Your task to perform on an android device: change alarm snooze length Image 0: 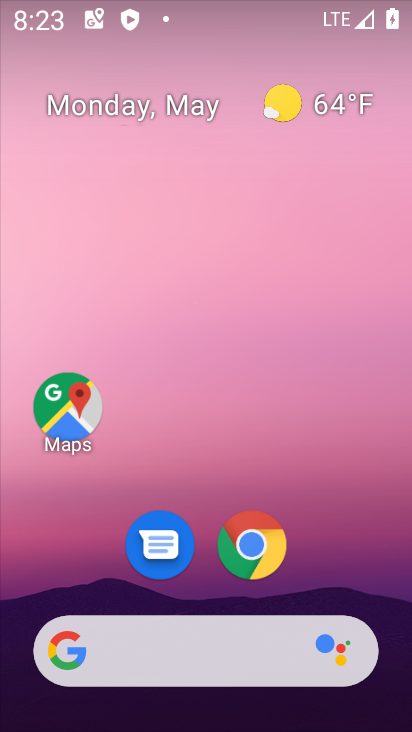
Step 0: drag from (166, 657) to (61, 24)
Your task to perform on an android device: change alarm snooze length Image 1: 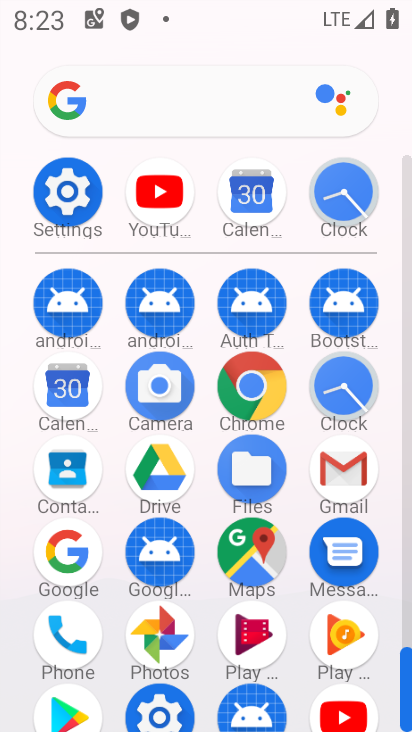
Step 1: click (340, 180)
Your task to perform on an android device: change alarm snooze length Image 2: 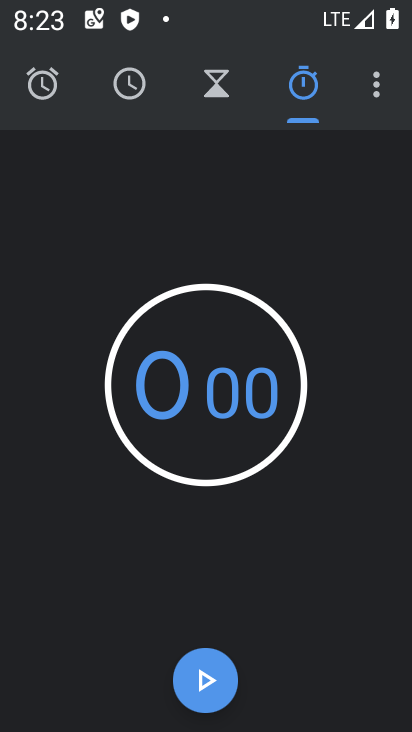
Step 2: click (380, 77)
Your task to perform on an android device: change alarm snooze length Image 3: 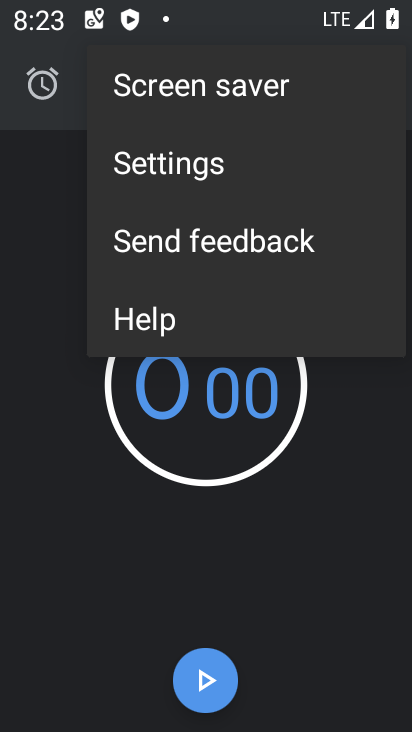
Step 3: click (163, 172)
Your task to perform on an android device: change alarm snooze length Image 4: 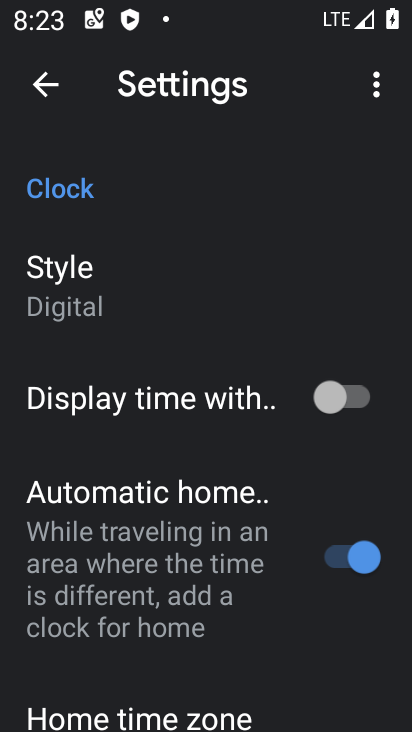
Step 4: drag from (202, 610) to (192, 145)
Your task to perform on an android device: change alarm snooze length Image 5: 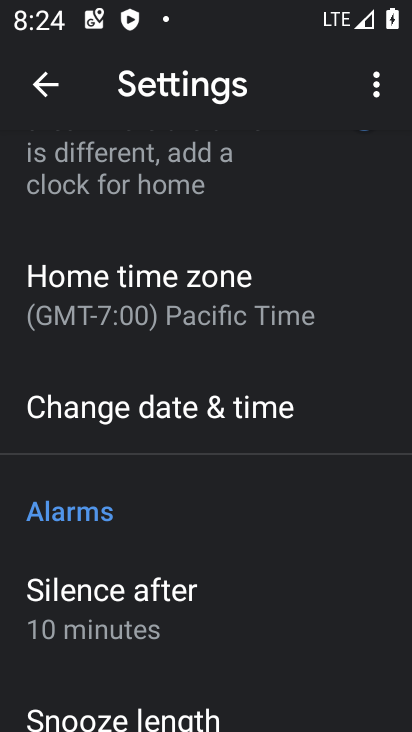
Step 5: click (172, 718)
Your task to perform on an android device: change alarm snooze length Image 6: 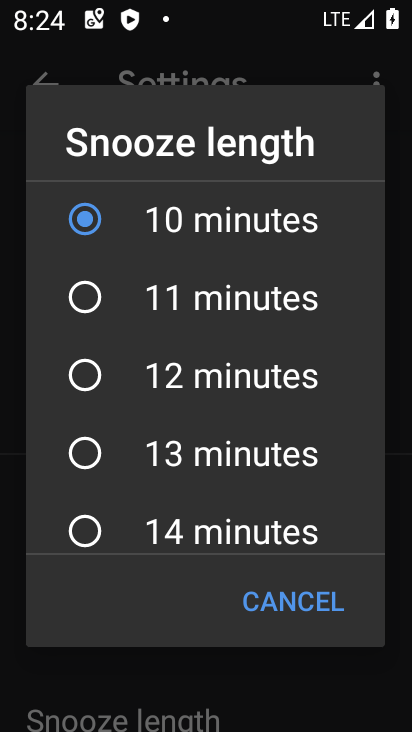
Step 6: click (188, 530)
Your task to perform on an android device: change alarm snooze length Image 7: 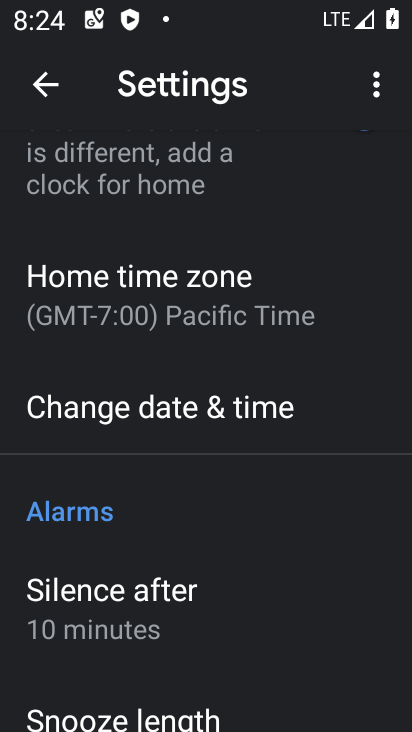
Step 7: task complete